Your task to perform on an android device: Open my contact list Image 0: 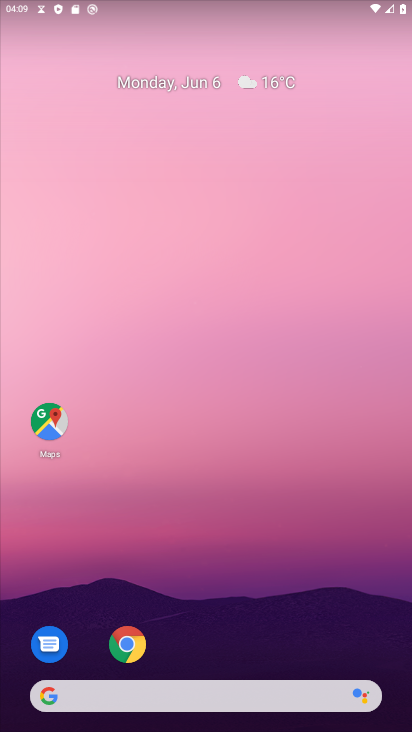
Step 0: drag from (388, 684) to (329, 58)
Your task to perform on an android device: Open my contact list Image 1: 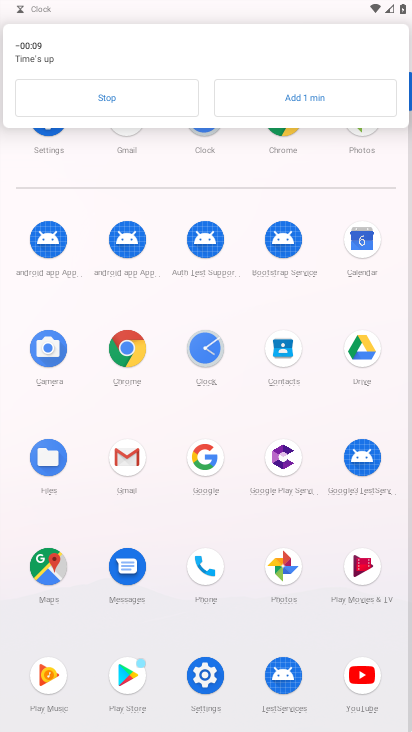
Step 1: click (114, 102)
Your task to perform on an android device: Open my contact list Image 2: 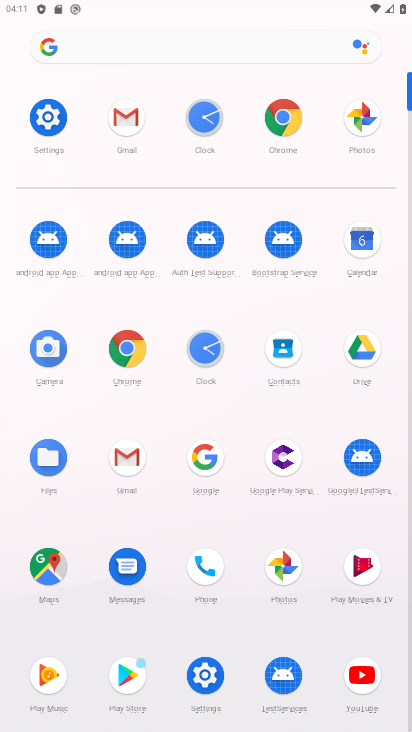
Step 2: click (283, 352)
Your task to perform on an android device: Open my contact list Image 3: 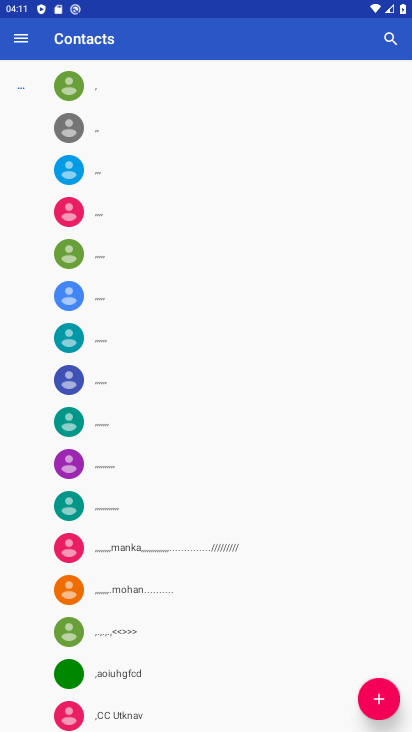
Step 3: task complete